Your task to perform on an android device: Open eBay Image 0: 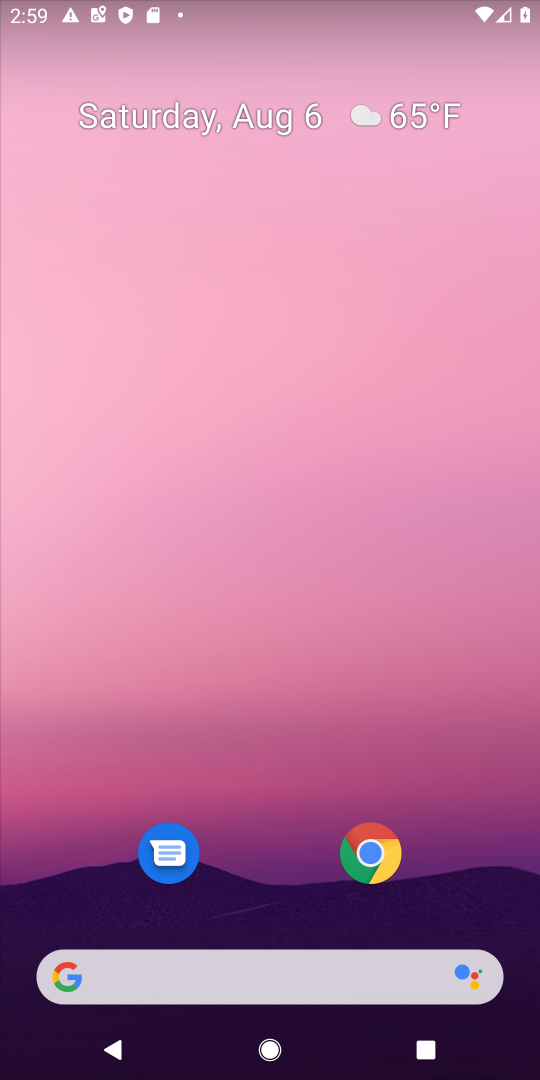
Step 0: click (360, 841)
Your task to perform on an android device: Open eBay Image 1: 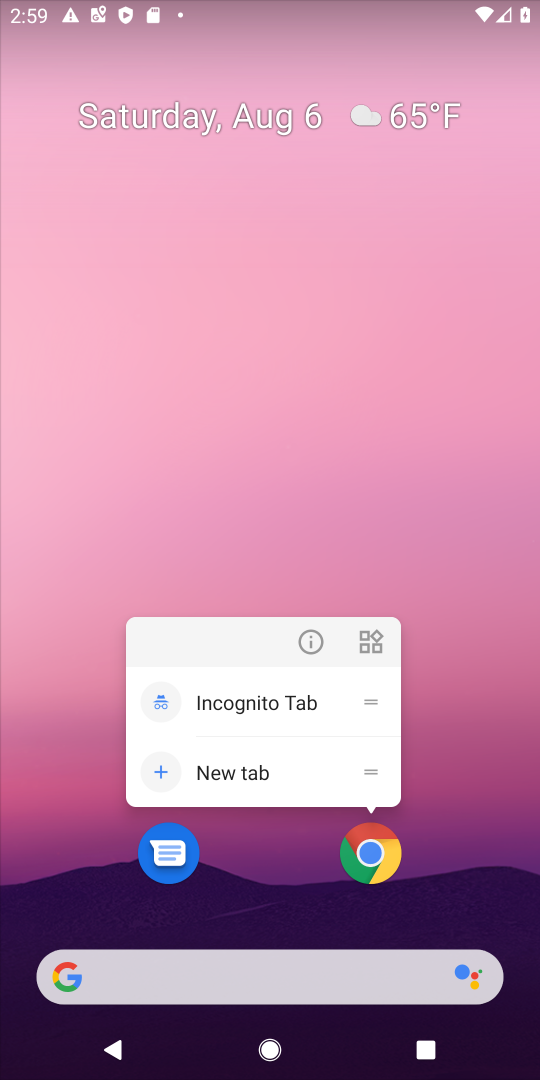
Step 1: click (374, 858)
Your task to perform on an android device: Open eBay Image 2: 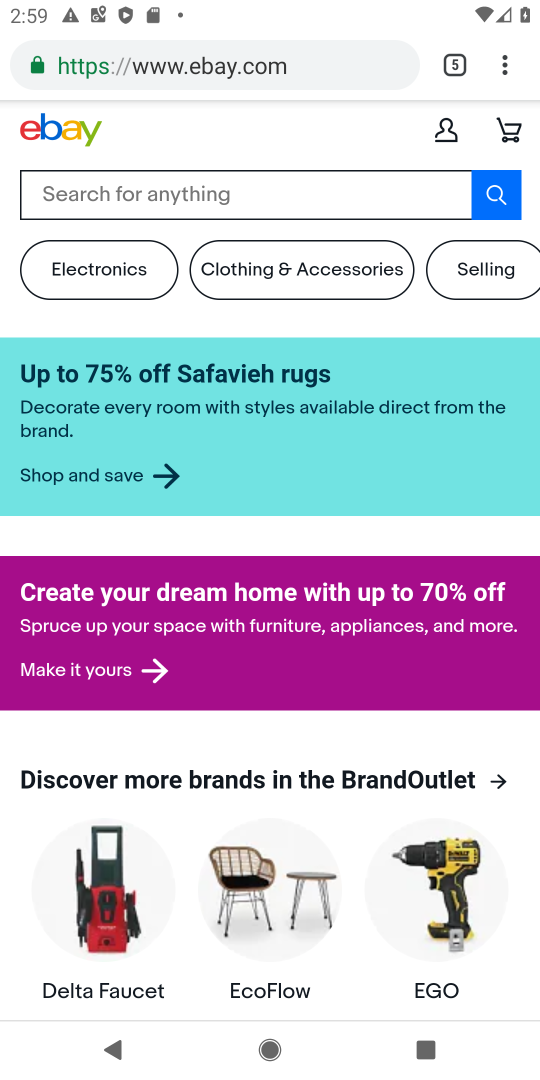
Step 2: task complete